Your task to perform on an android device: toggle wifi Image 0: 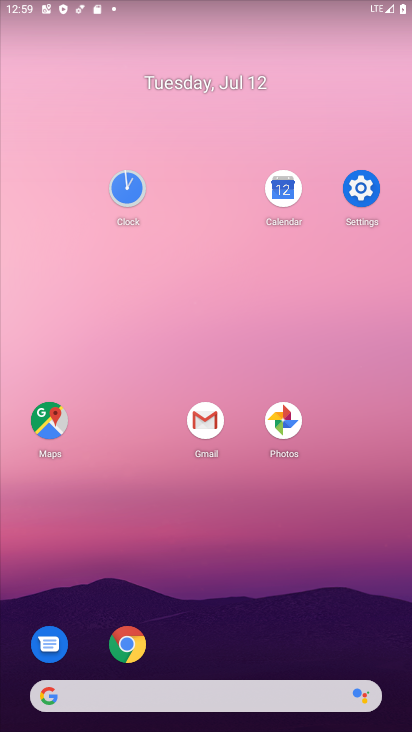
Step 0: click (372, 174)
Your task to perform on an android device: toggle wifi Image 1: 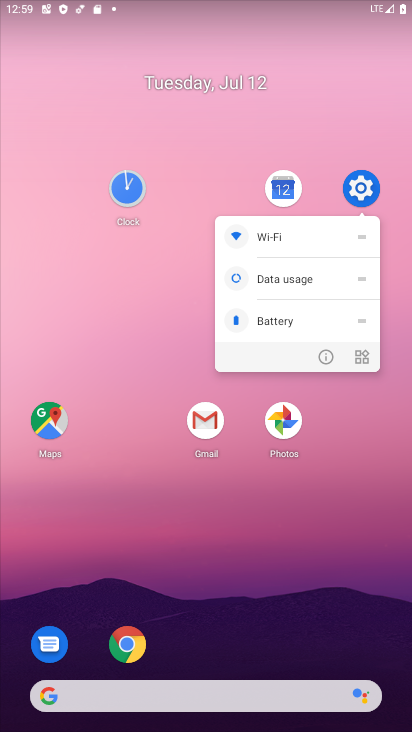
Step 1: click (373, 175)
Your task to perform on an android device: toggle wifi Image 2: 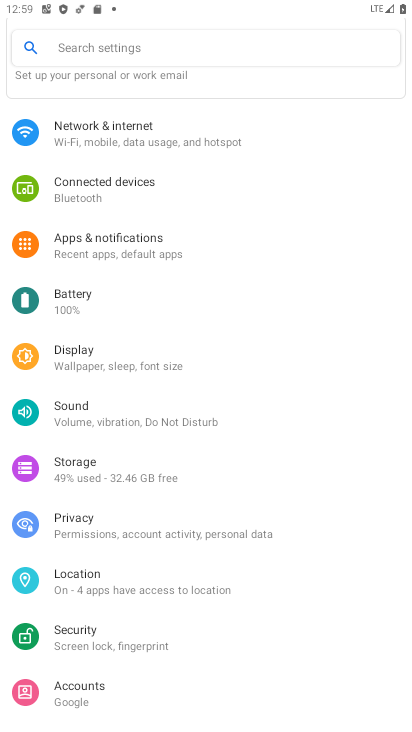
Step 2: click (156, 151)
Your task to perform on an android device: toggle wifi Image 3: 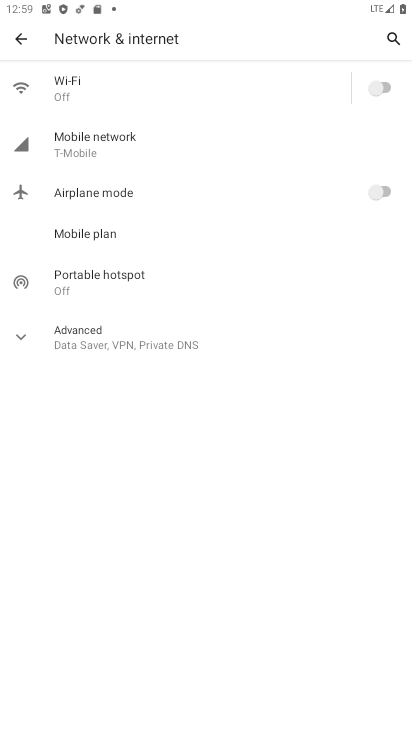
Step 3: click (370, 93)
Your task to perform on an android device: toggle wifi Image 4: 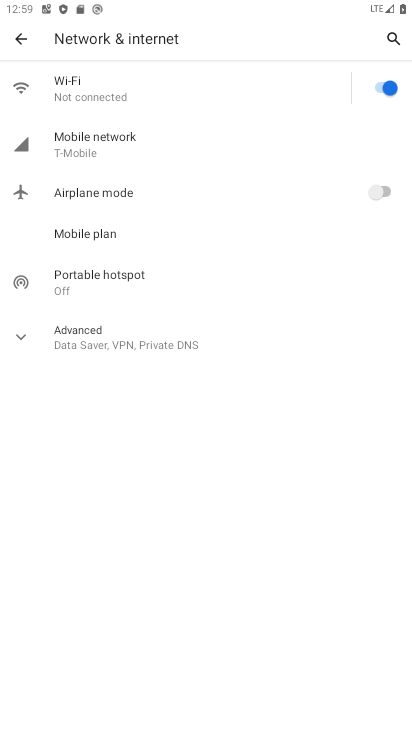
Step 4: task complete